Your task to perform on an android device: Do I have any events tomorrow? Image 0: 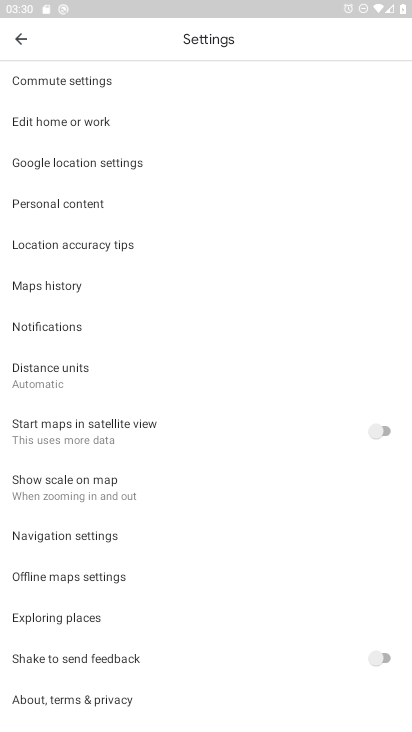
Step 0: press home button
Your task to perform on an android device: Do I have any events tomorrow? Image 1: 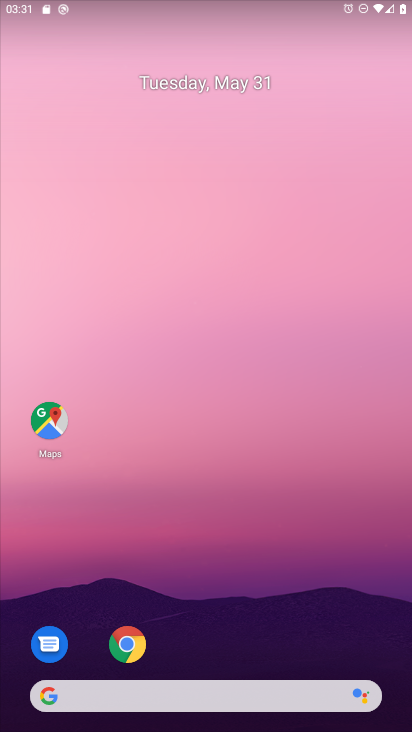
Step 1: drag from (276, 589) to (263, 16)
Your task to perform on an android device: Do I have any events tomorrow? Image 2: 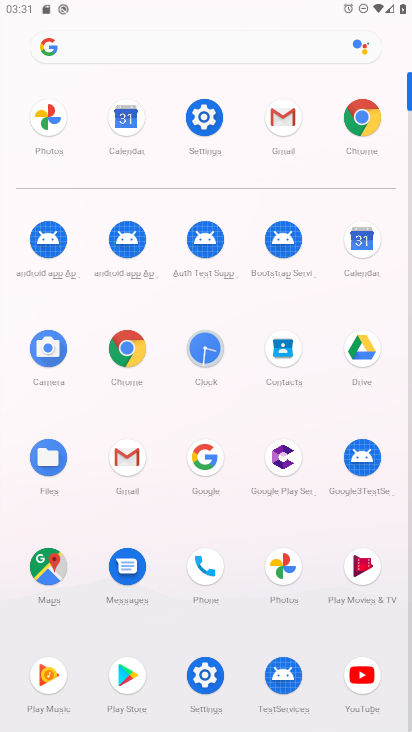
Step 2: click (362, 248)
Your task to perform on an android device: Do I have any events tomorrow? Image 3: 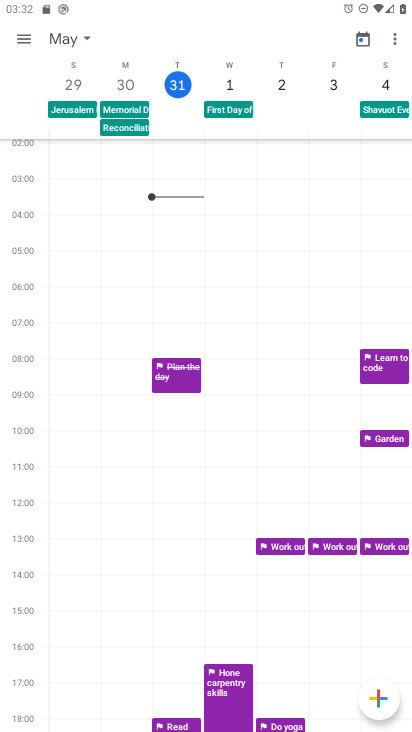
Step 3: click (223, 84)
Your task to perform on an android device: Do I have any events tomorrow? Image 4: 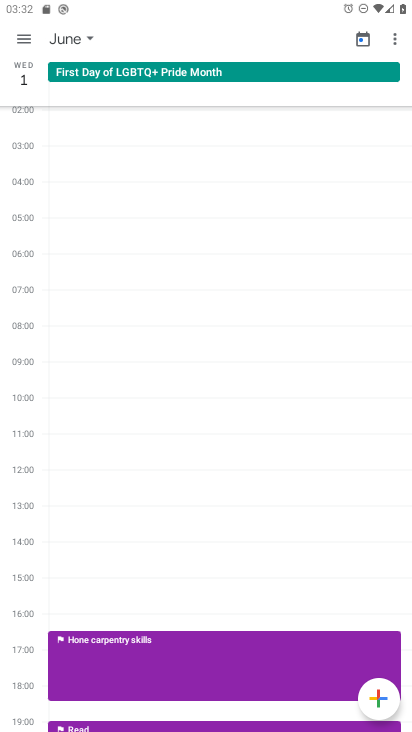
Step 4: task complete